Your task to perform on an android device: see tabs open on other devices in the chrome app Image 0: 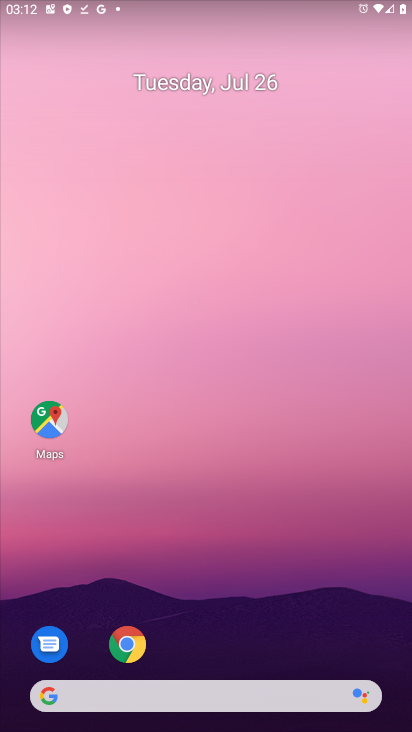
Step 0: drag from (192, 668) to (186, 125)
Your task to perform on an android device: see tabs open on other devices in the chrome app Image 1: 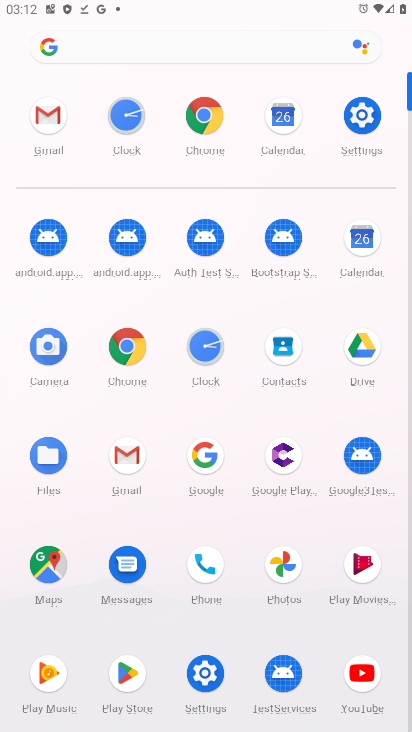
Step 1: click (128, 397)
Your task to perform on an android device: see tabs open on other devices in the chrome app Image 2: 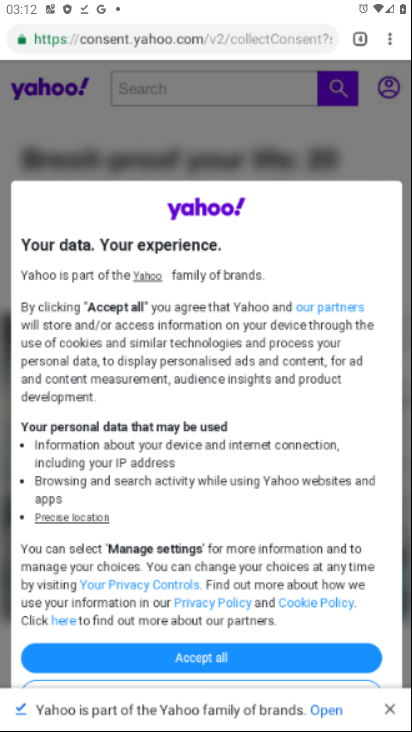
Step 2: click (122, 347)
Your task to perform on an android device: see tabs open on other devices in the chrome app Image 3: 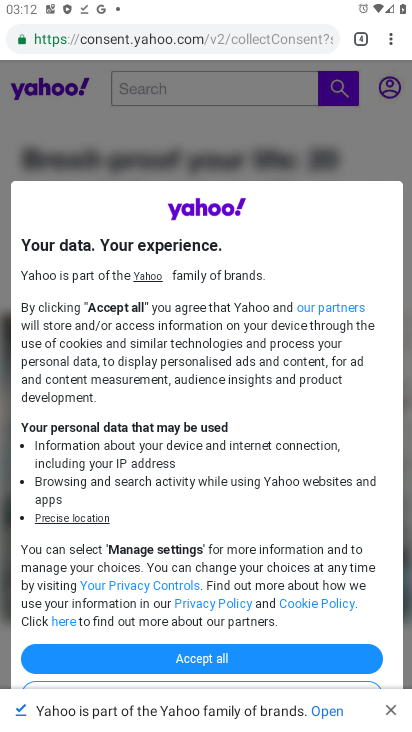
Step 3: click (363, 37)
Your task to perform on an android device: see tabs open on other devices in the chrome app Image 4: 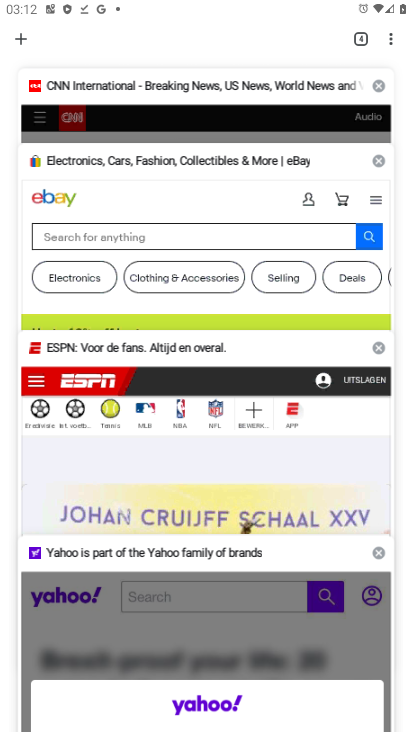
Step 4: task complete